Your task to perform on an android device: Toggle the flashlight Image 0: 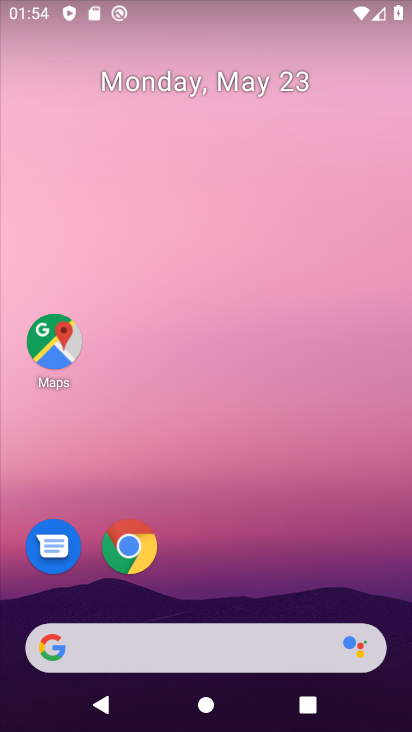
Step 0: drag from (180, 538) to (229, 84)
Your task to perform on an android device: Toggle the flashlight Image 1: 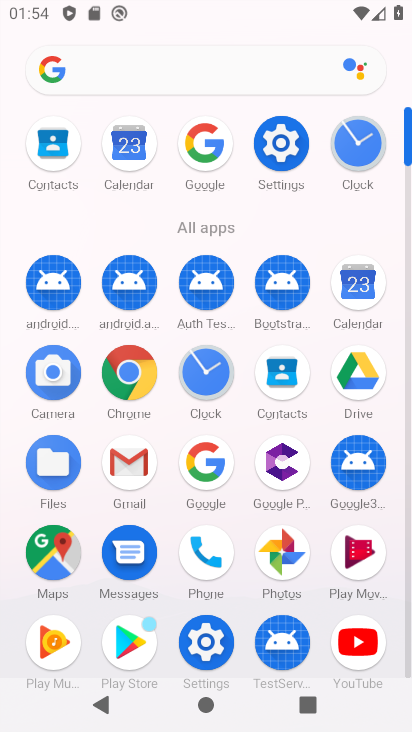
Step 1: click (262, 132)
Your task to perform on an android device: Toggle the flashlight Image 2: 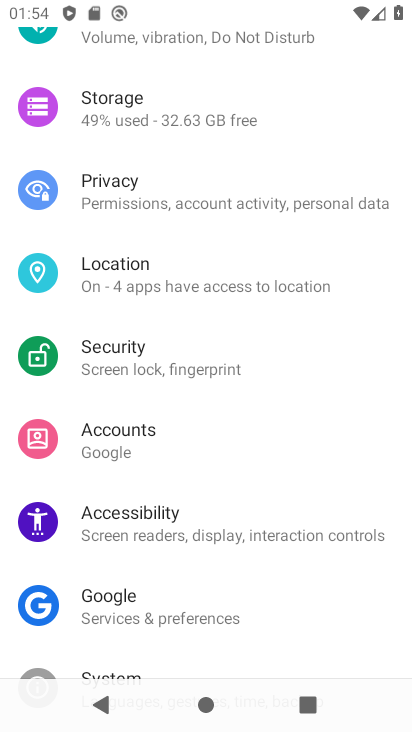
Step 2: drag from (178, 291) to (178, 568)
Your task to perform on an android device: Toggle the flashlight Image 3: 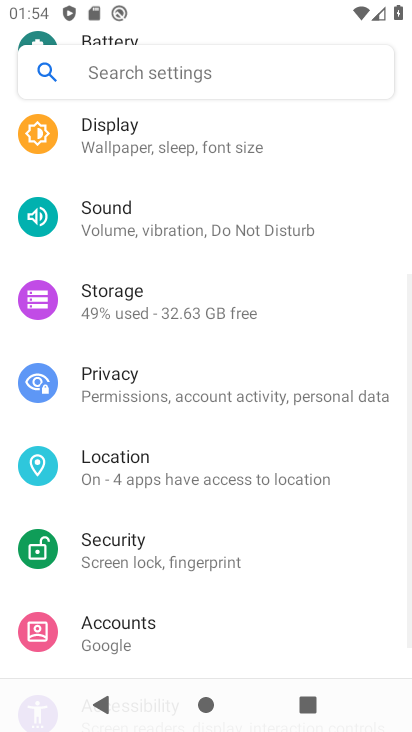
Step 3: click (131, 60)
Your task to perform on an android device: Toggle the flashlight Image 4: 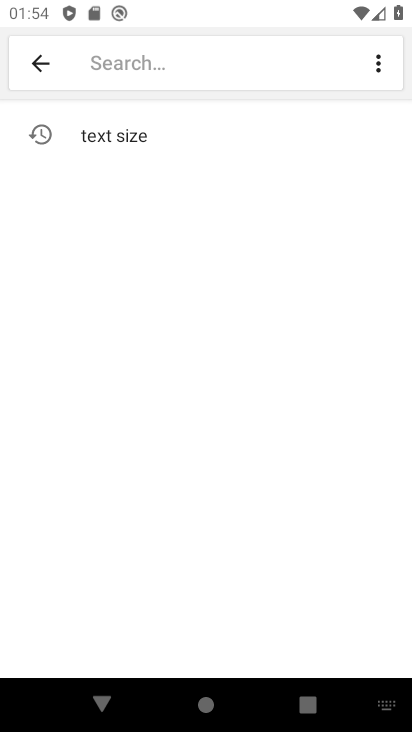
Step 4: type "flashlight"
Your task to perform on an android device: Toggle the flashlight Image 5: 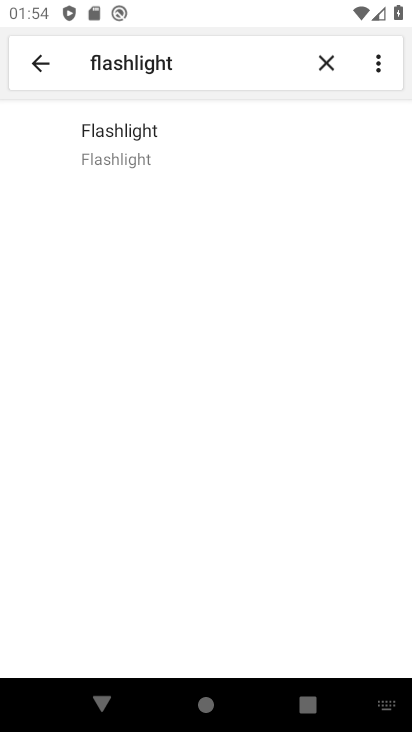
Step 5: click (108, 134)
Your task to perform on an android device: Toggle the flashlight Image 6: 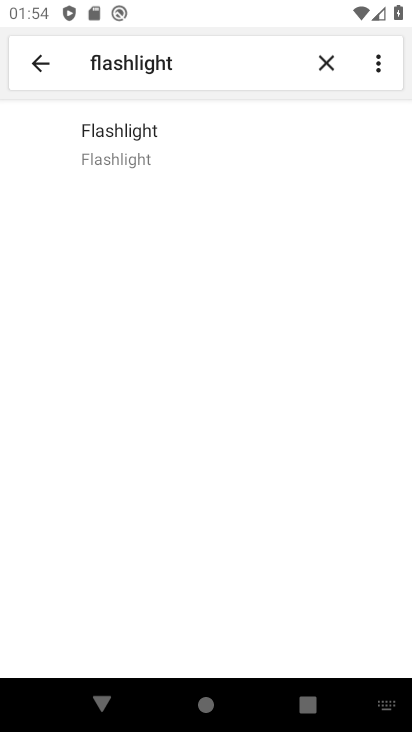
Step 6: task complete